Your task to perform on an android device: Open battery settings Image 0: 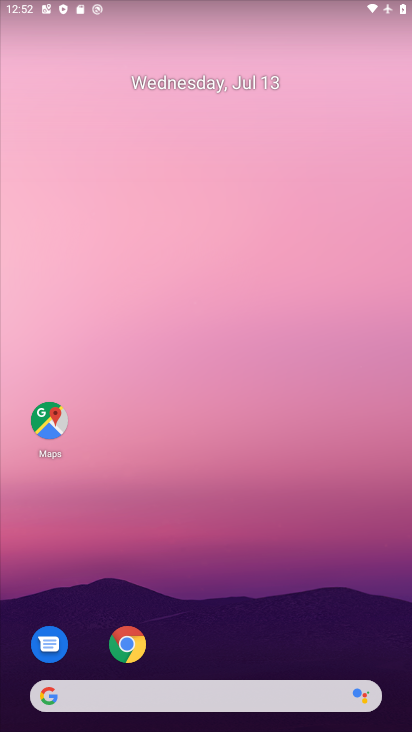
Step 0: drag from (286, 621) to (213, 63)
Your task to perform on an android device: Open battery settings Image 1: 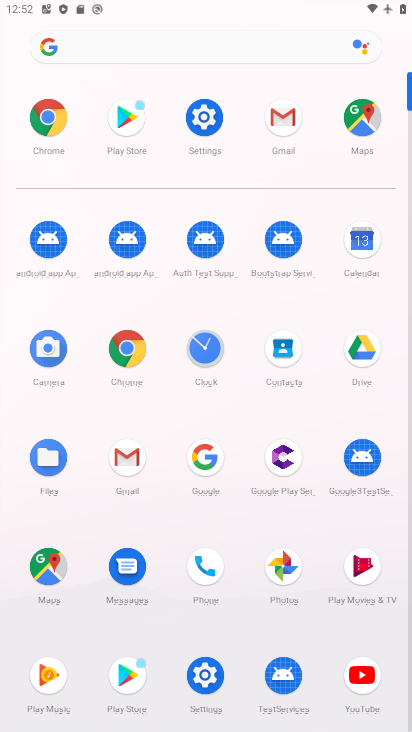
Step 1: click (195, 119)
Your task to perform on an android device: Open battery settings Image 2: 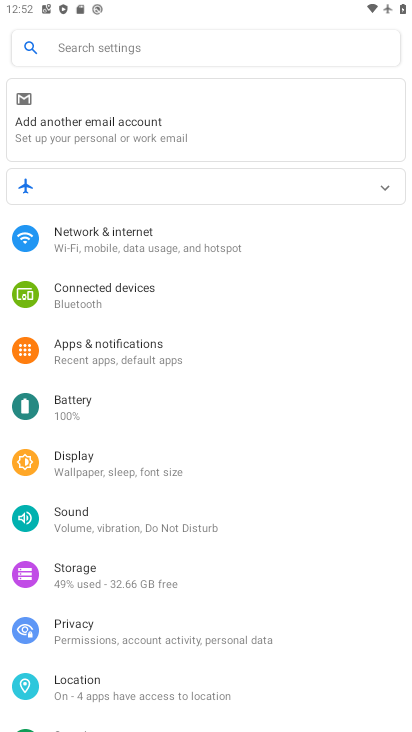
Step 2: click (77, 398)
Your task to perform on an android device: Open battery settings Image 3: 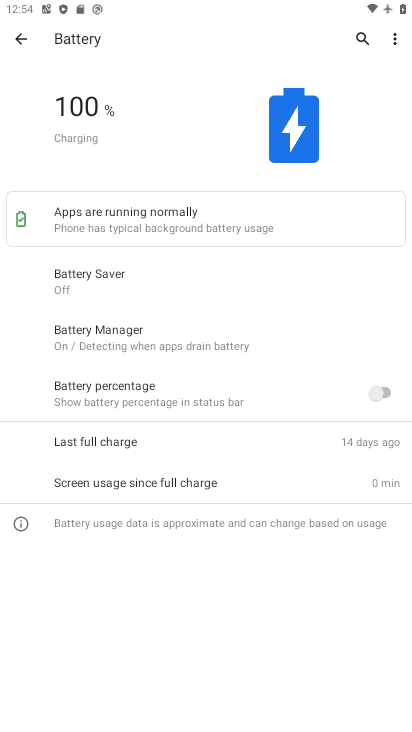
Step 3: task complete